Your task to perform on an android device: toggle data saver in the chrome app Image 0: 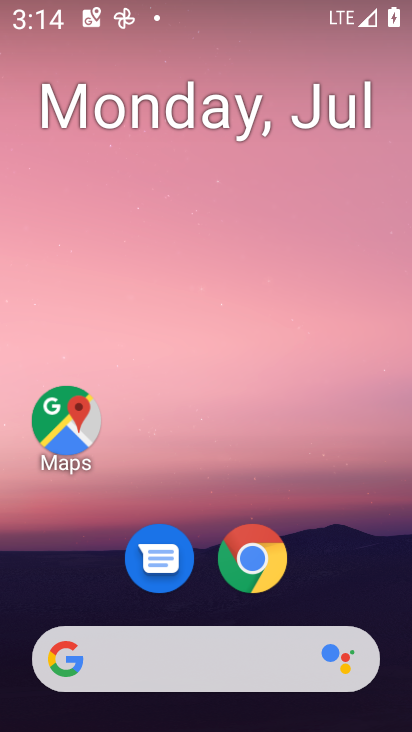
Step 0: drag from (333, 540) to (323, 43)
Your task to perform on an android device: toggle data saver in the chrome app Image 1: 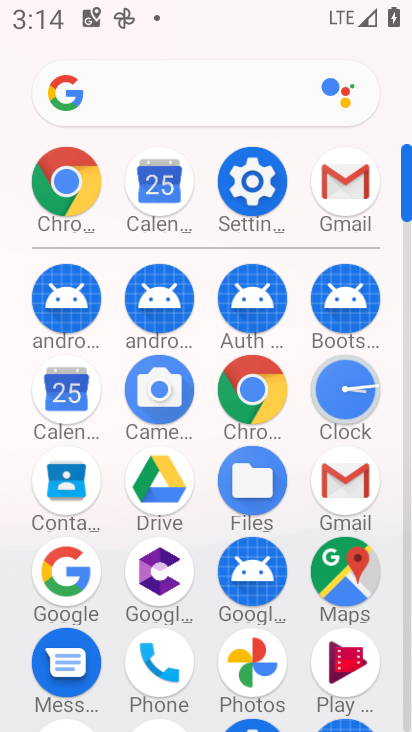
Step 1: click (269, 404)
Your task to perform on an android device: toggle data saver in the chrome app Image 2: 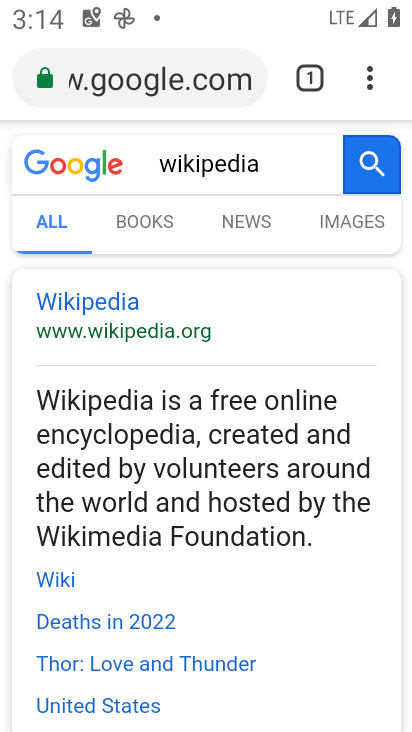
Step 2: click (366, 89)
Your task to perform on an android device: toggle data saver in the chrome app Image 3: 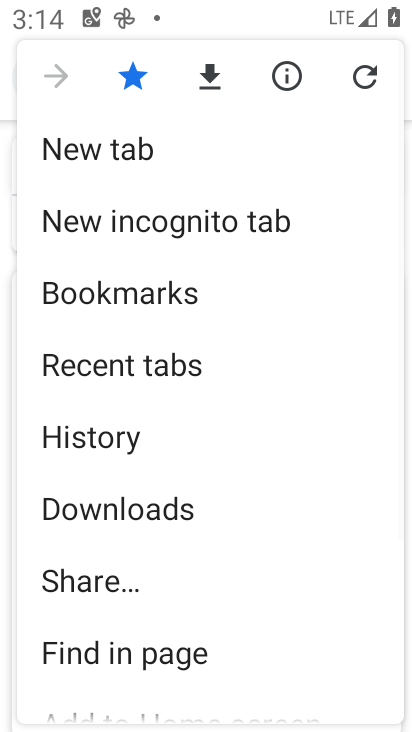
Step 3: drag from (281, 571) to (278, 345)
Your task to perform on an android device: toggle data saver in the chrome app Image 4: 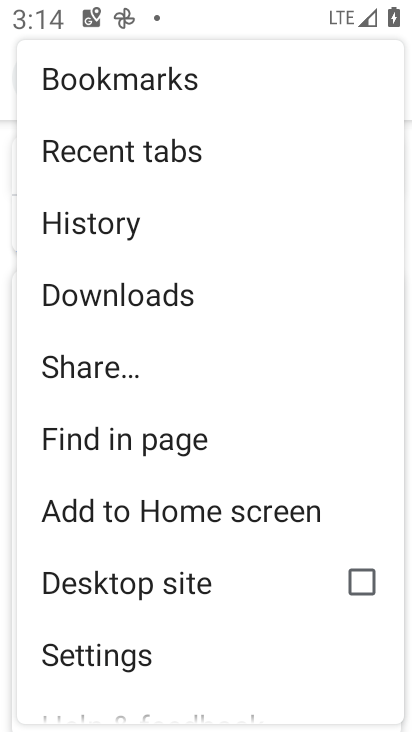
Step 4: drag from (248, 614) to (253, 430)
Your task to perform on an android device: toggle data saver in the chrome app Image 5: 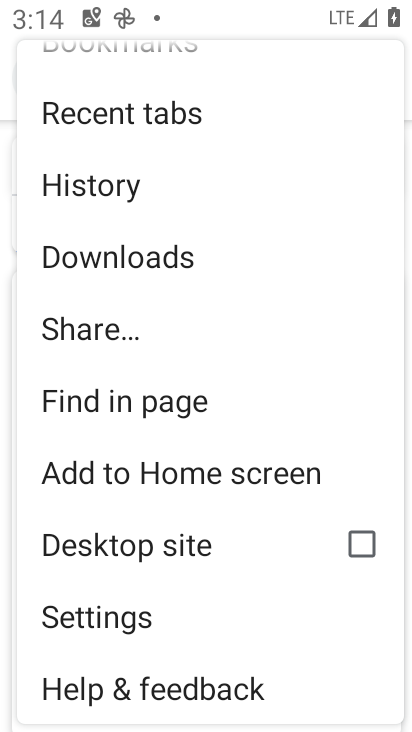
Step 5: click (167, 622)
Your task to perform on an android device: toggle data saver in the chrome app Image 6: 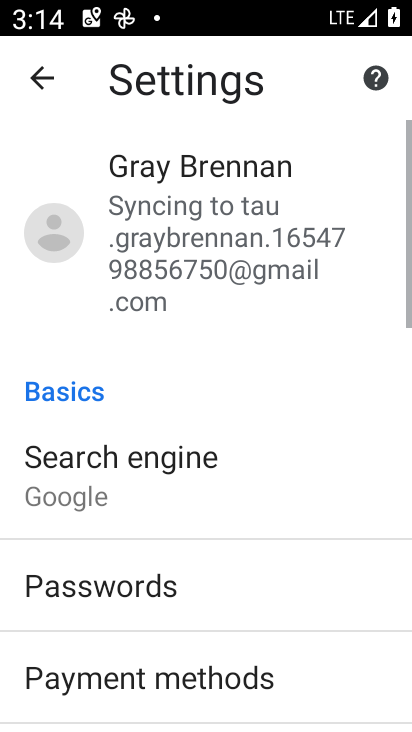
Step 6: drag from (332, 579) to (330, 343)
Your task to perform on an android device: toggle data saver in the chrome app Image 7: 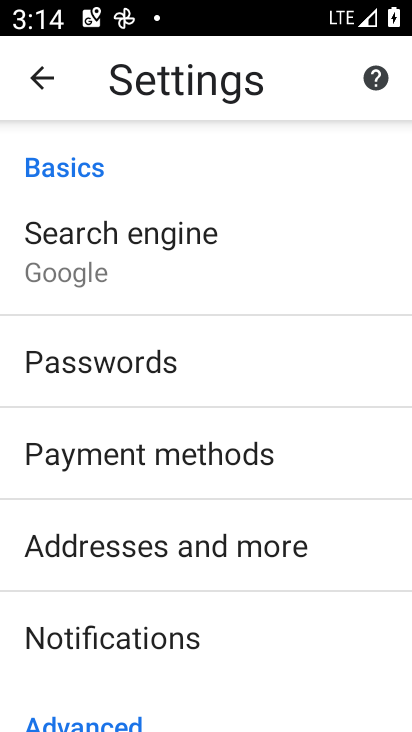
Step 7: drag from (333, 619) to (333, 387)
Your task to perform on an android device: toggle data saver in the chrome app Image 8: 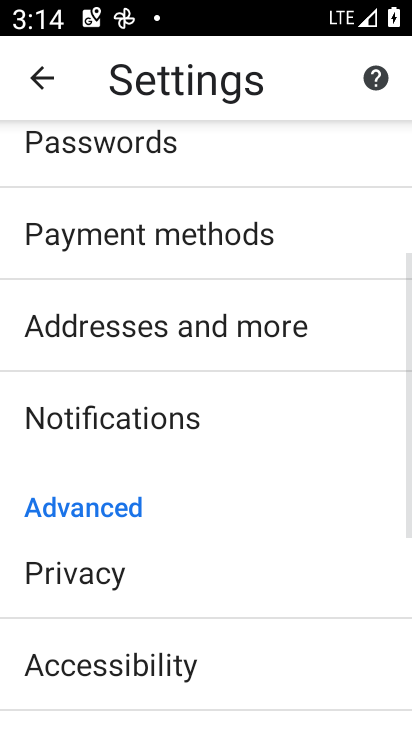
Step 8: drag from (307, 579) to (295, 366)
Your task to perform on an android device: toggle data saver in the chrome app Image 9: 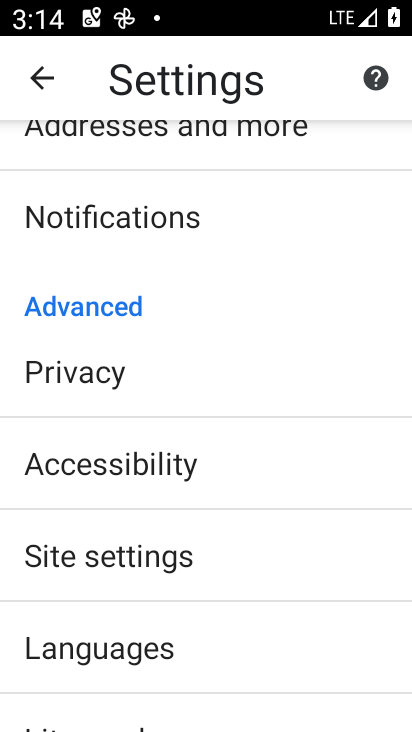
Step 9: click (285, 558)
Your task to perform on an android device: toggle data saver in the chrome app Image 10: 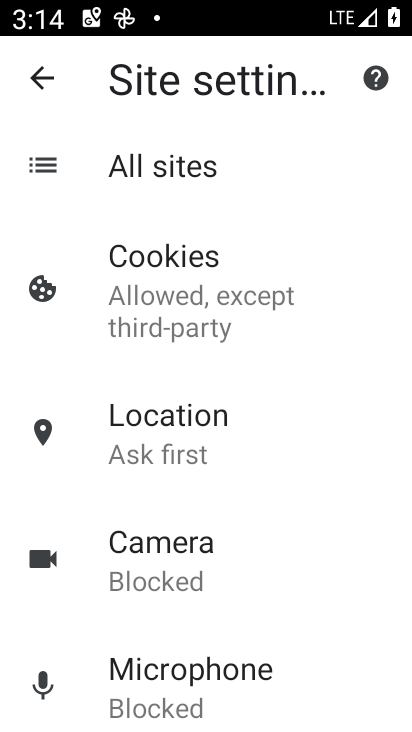
Step 10: drag from (327, 619) to (317, 447)
Your task to perform on an android device: toggle data saver in the chrome app Image 11: 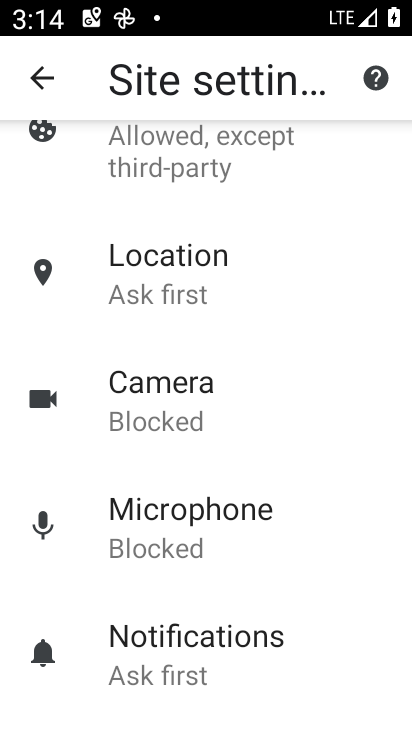
Step 11: drag from (351, 637) to (329, 479)
Your task to perform on an android device: toggle data saver in the chrome app Image 12: 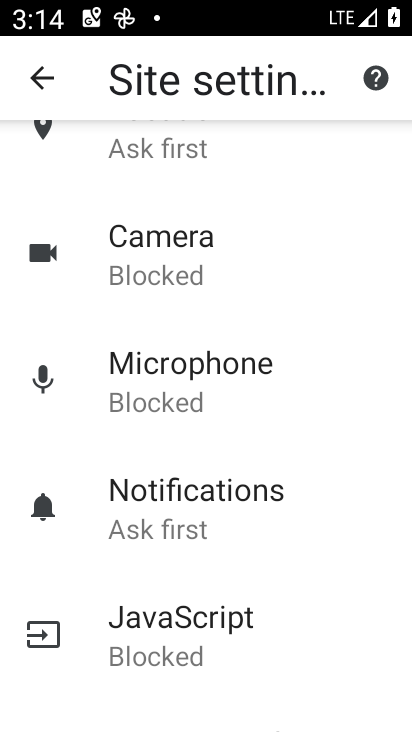
Step 12: drag from (319, 643) to (308, 405)
Your task to perform on an android device: toggle data saver in the chrome app Image 13: 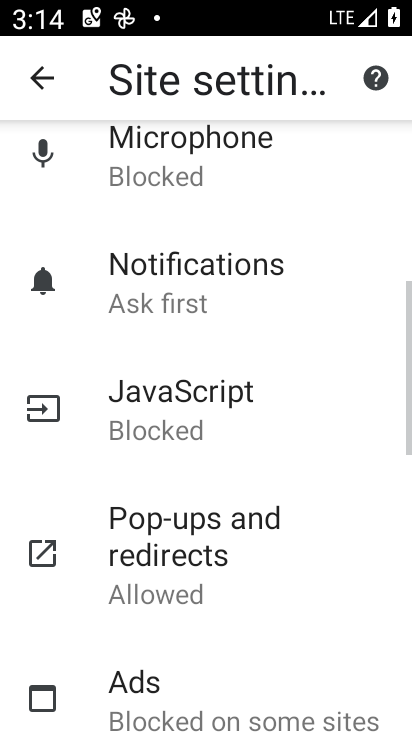
Step 13: drag from (331, 628) to (326, 410)
Your task to perform on an android device: toggle data saver in the chrome app Image 14: 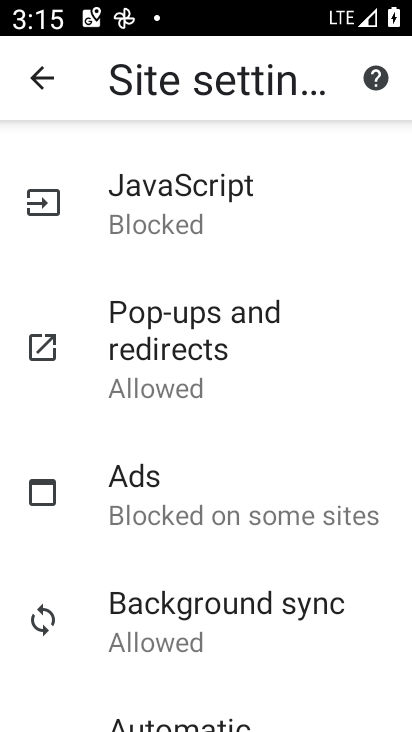
Step 14: drag from (303, 646) to (300, 421)
Your task to perform on an android device: toggle data saver in the chrome app Image 15: 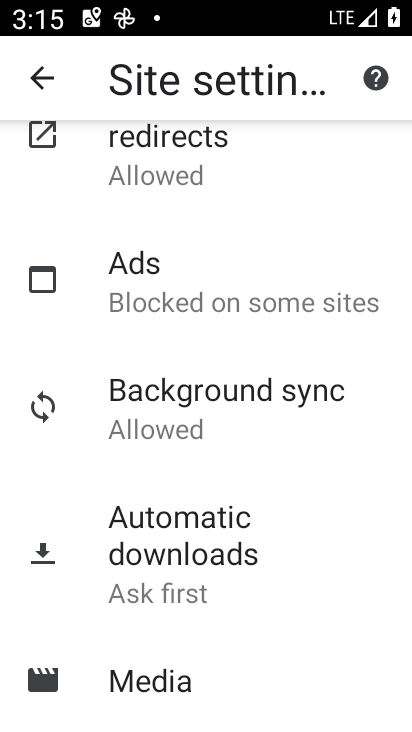
Step 15: click (54, 82)
Your task to perform on an android device: toggle data saver in the chrome app Image 16: 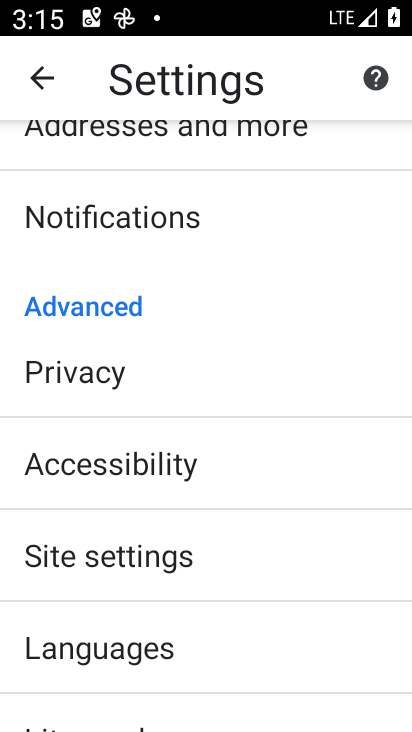
Step 16: drag from (202, 650) to (229, 398)
Your task to perform on an android device: toggle data saver in the chrome app Image 17: 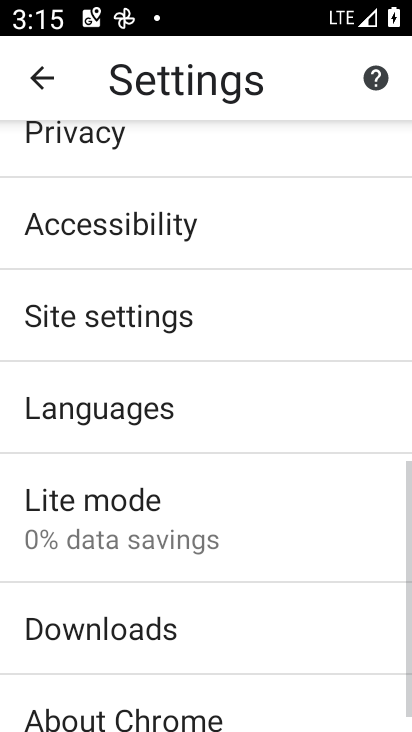
Step 17: click (245, 539)
Your task to perform on an android device: toggle data saver in the chrome app Image 18: 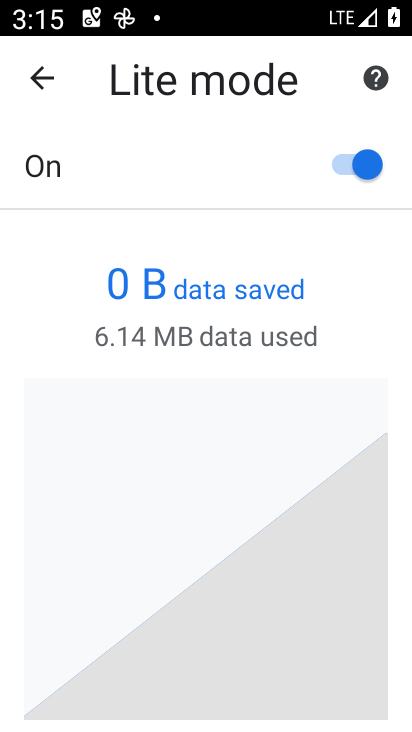
Step 18: click (358, 168)
Your task to perform on an android device: toggle data saver in the chrome app Image 19: 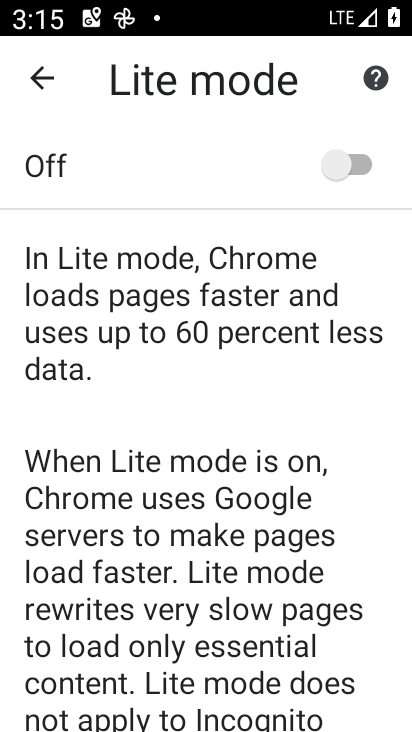
Step 19: task complete